Your task to perform on an android device: check data usage Image 0: 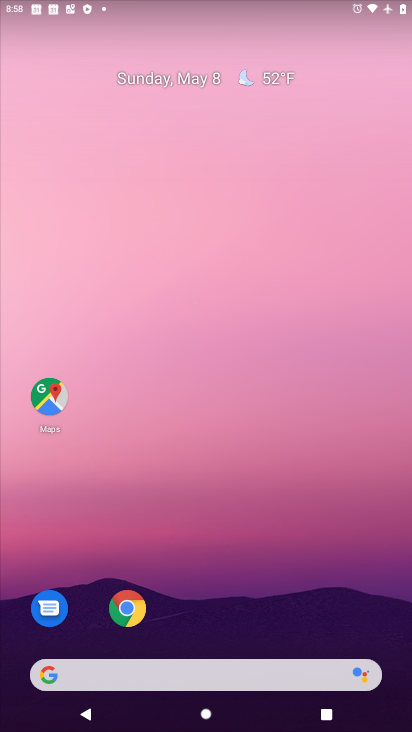
Step 0: drag from (296, 603) to (229, 2)
Your task to perform on an android device: check data usage Image 1: 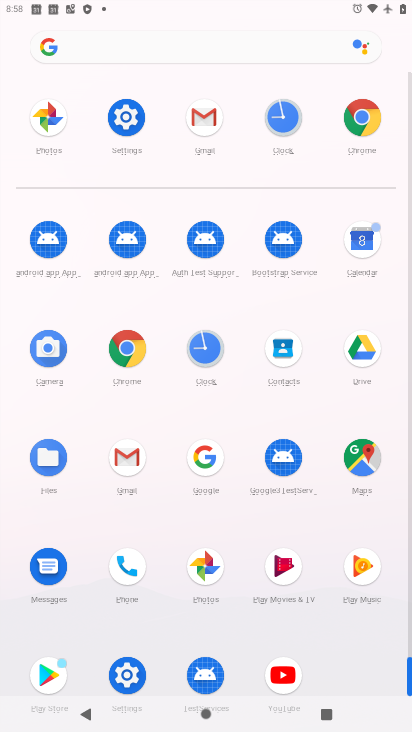
Step 1: click (122, 114)
Your task to perform on an android device: check data usage Image 2: 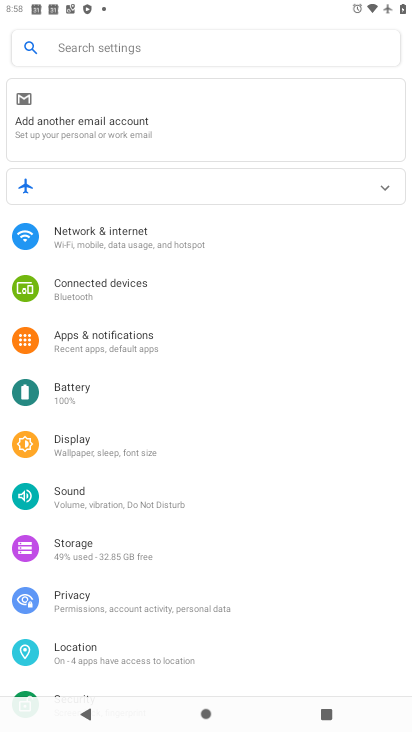
Step 2: click (150, 240)
Your task to perform on an android device: check data usage Image 3: 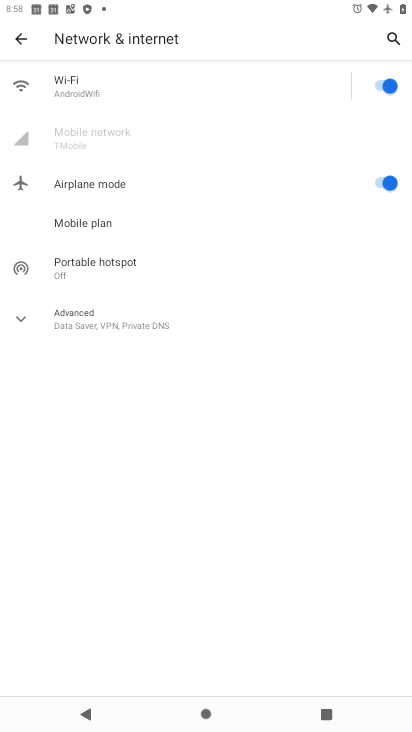
Step 3: click (38, 322)
Your task to perform on an android device: check data usage Image 4: 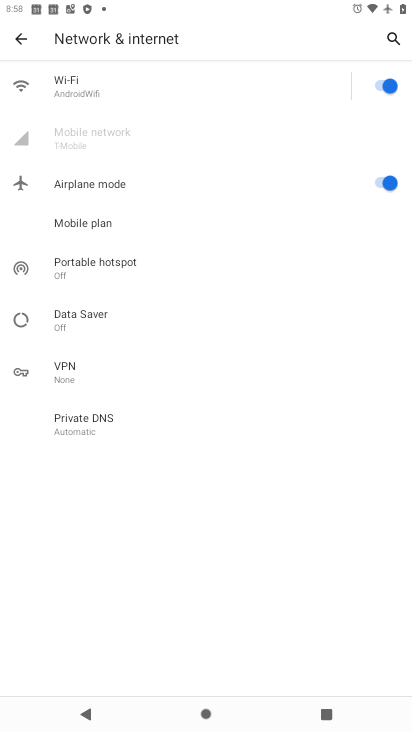
Step 4: task complete